Your task to perform on an android device: turn on wifi Image 0: 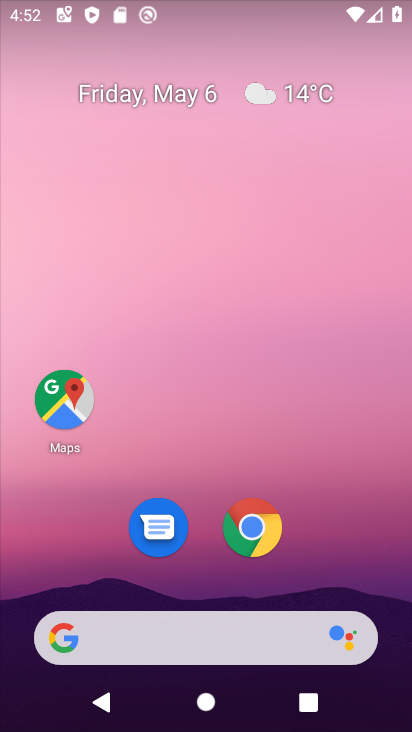
Step 0: drag from (325, 568) to (400, 35)
Your task to perform on an android device: turn on wifi Image 1: 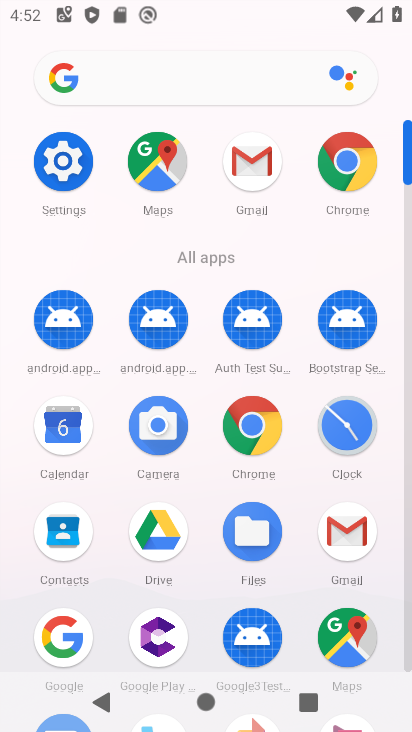
Step 1: click (29, 154)
Your task to perform on an android device: turn on wifi Image 2: 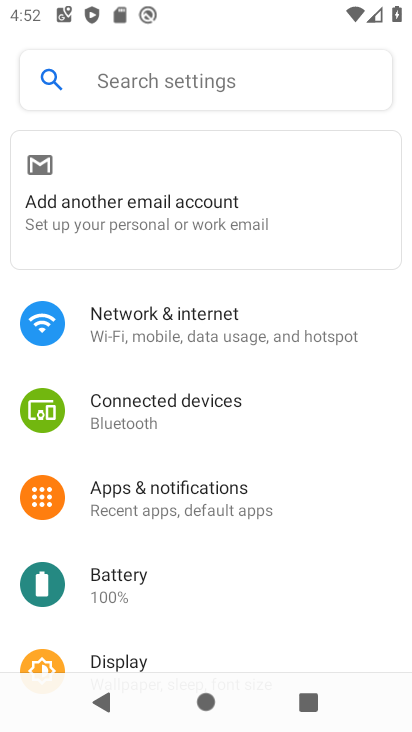
Step 2: click (153, 332)
Your task to perform on an android device: turn on wifi Image 3: 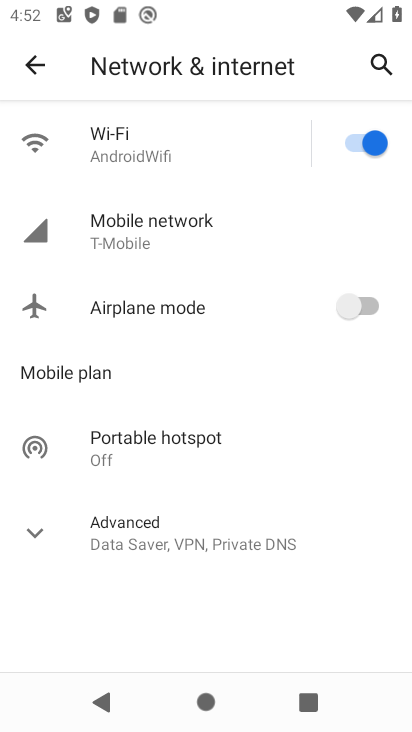
Step 3: click (164, 151)
Your task to perform on an android device: turn on wifi Image 4: 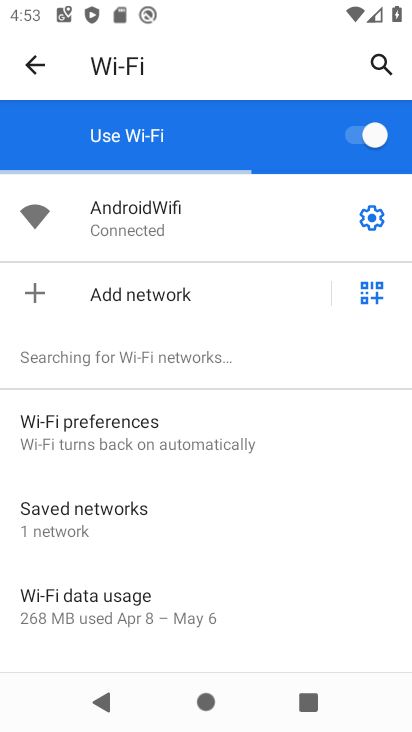
Step 4: task complete